Your task to perform on an android device: Open the web browser Image 0: 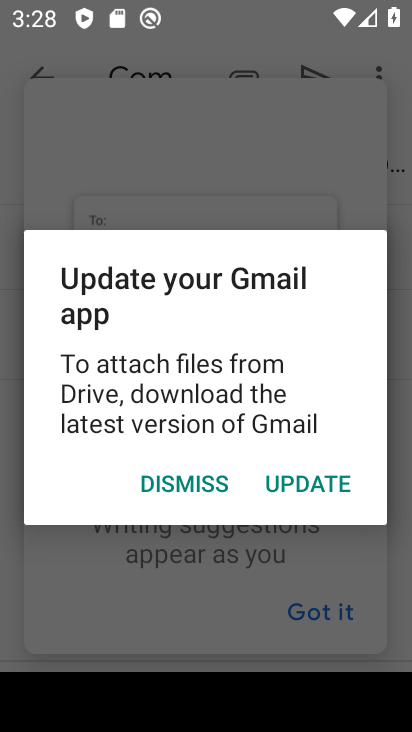
Step 0: press back button
Your task to perform on an android device: Open the web browser Image 1: 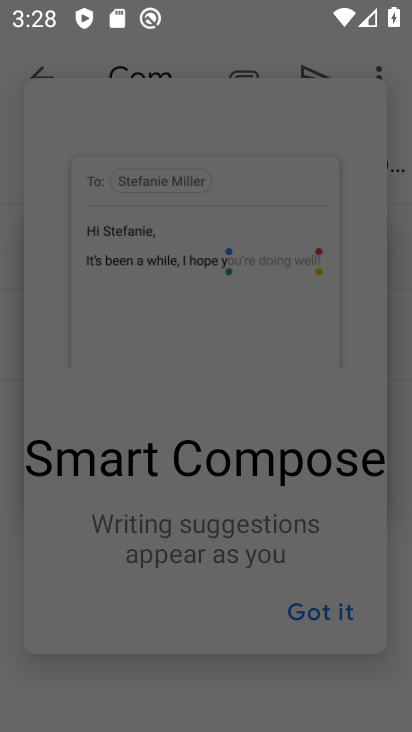
Step 1: click (173, 465)
Your task to perform on an android device: Open the web browser Image 2: 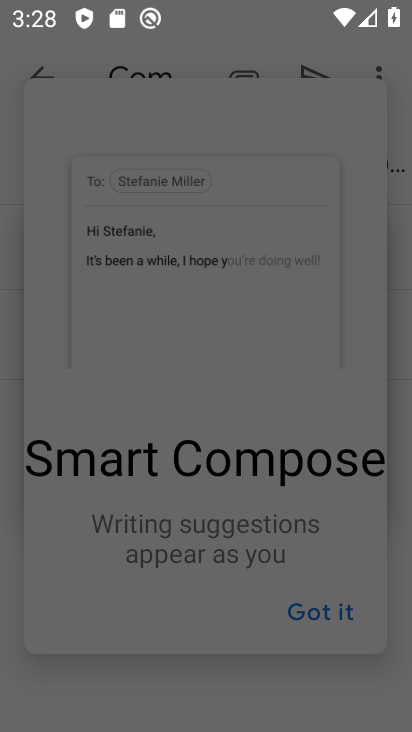
Step 2: click (314, 608)
Your task to perform on an android device: Open the web browser Image 3: 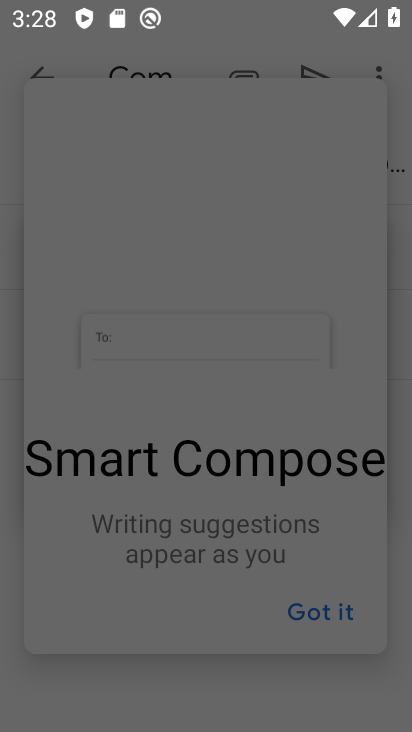
Step 3: click (311, 616)
Your task to perform on an android device: Open the web browser Image 4: 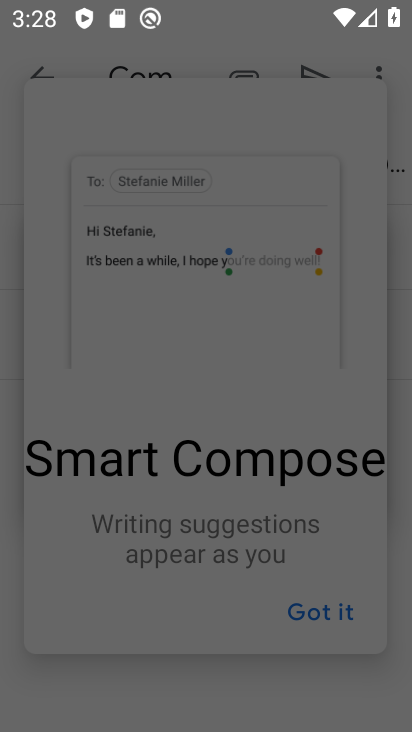
Step 4: click (318, 614)
Your task to perform on an android device: Open the web browser Image 5: 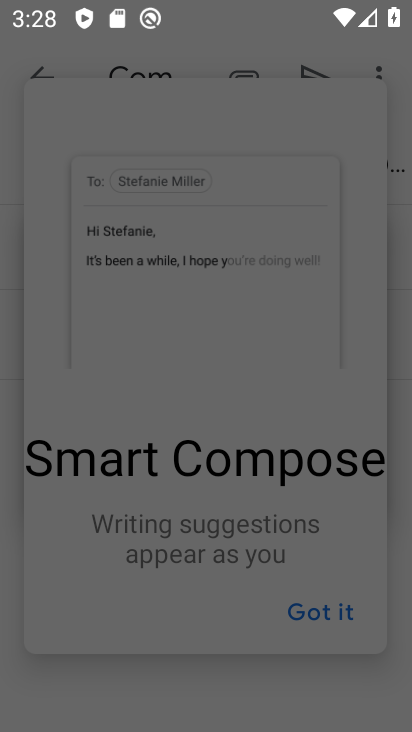
Step 5: click (318, 614)
Your task to perform on an android device: Open the web browser Image 6: 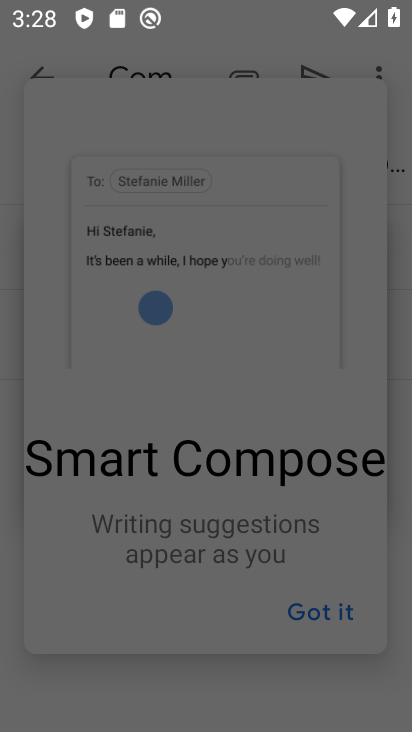
Step 6: click (328, 611)
Your task to perform on an android device: Open the web browser Image 7: 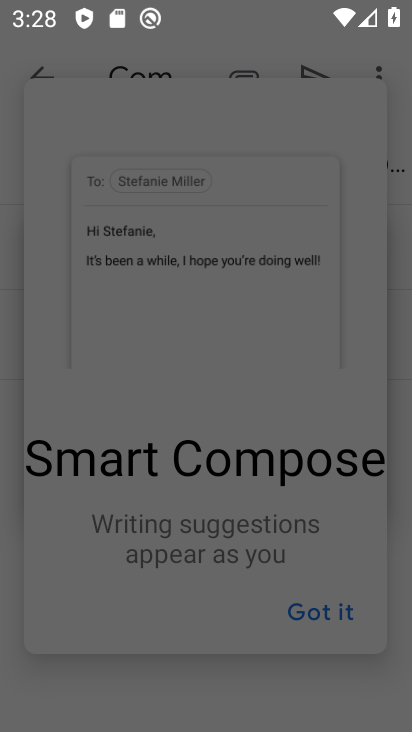
Step 7: click (330, 612)
Your task to perform on an android device: Open the web browser Image 8: 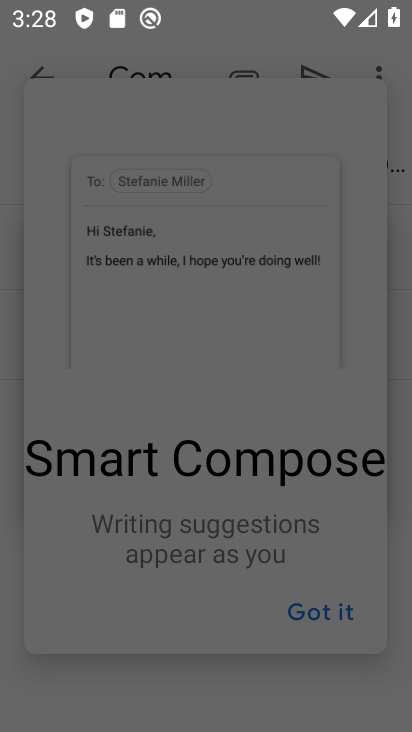
Step 8: click (328, 609)
Your task to perform on an android device: Open the web browser Image 9: 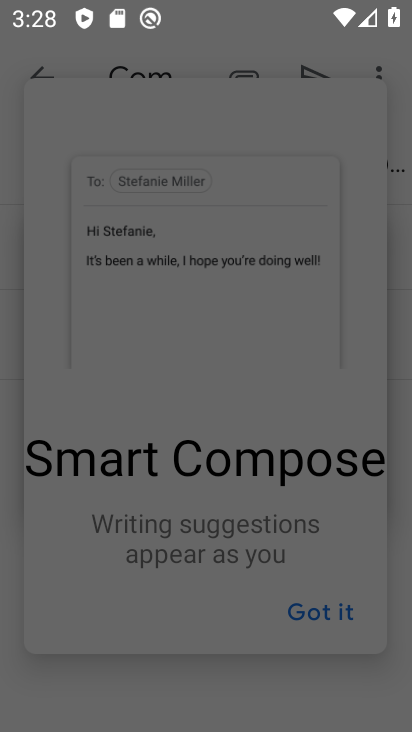
Step 9: click (300, 611)
Your task to perform on an android device: Open the web browser Image 10: 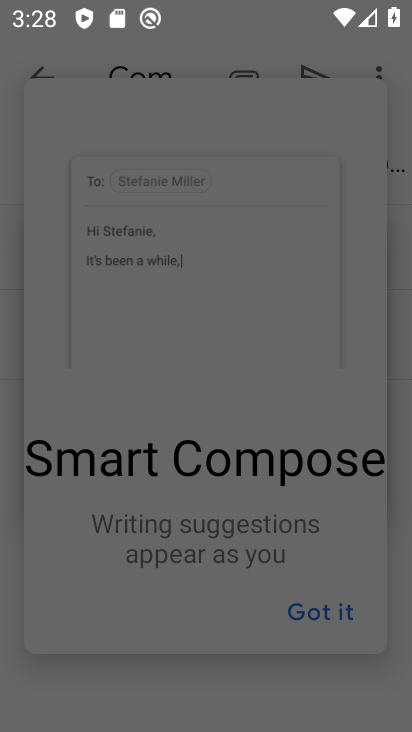
Step 10: press back button
Your task to perform on an android device: Open the web browser Image 11: 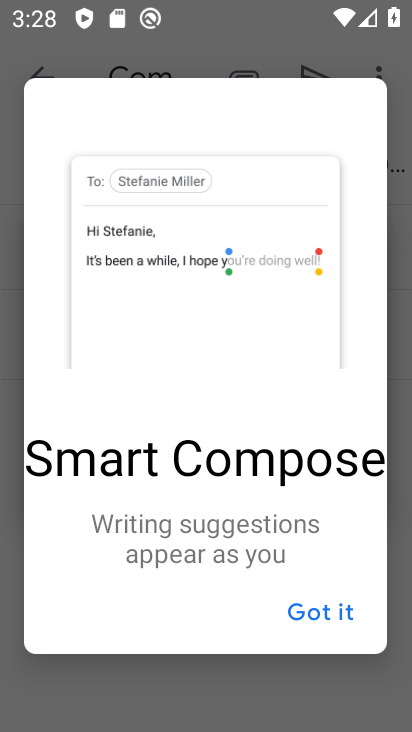
Step 11: click (301, 607)
Your task to perform on an android device: Open the web browser Image 12: 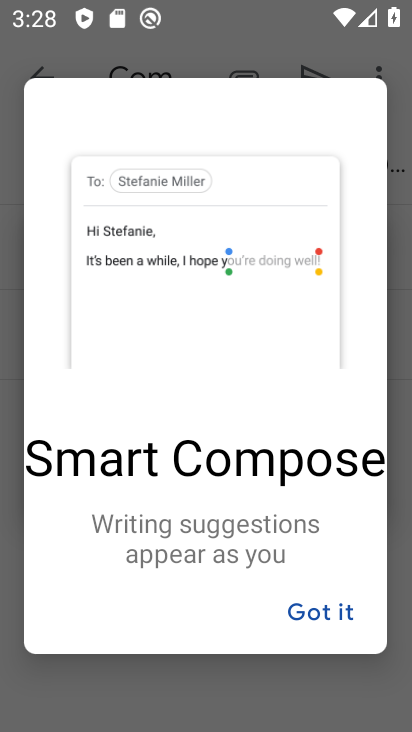
Step 12: click (317, 595)
Your task to perform on an android device: Open the web browser Image 13: 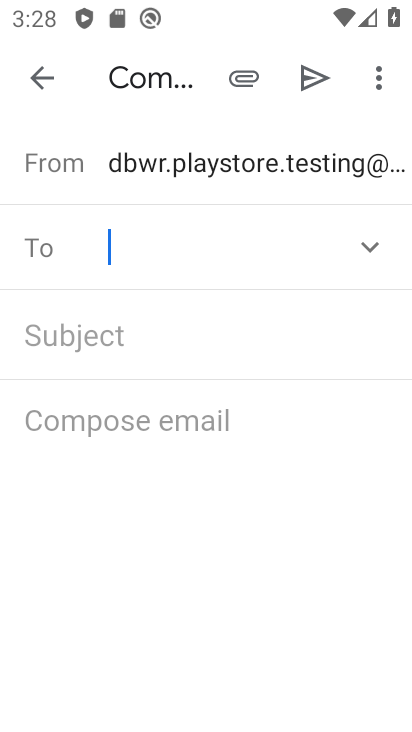
Step 13: click (34, 77)
Your task to perform on an android device: Open the web browser Image 14: 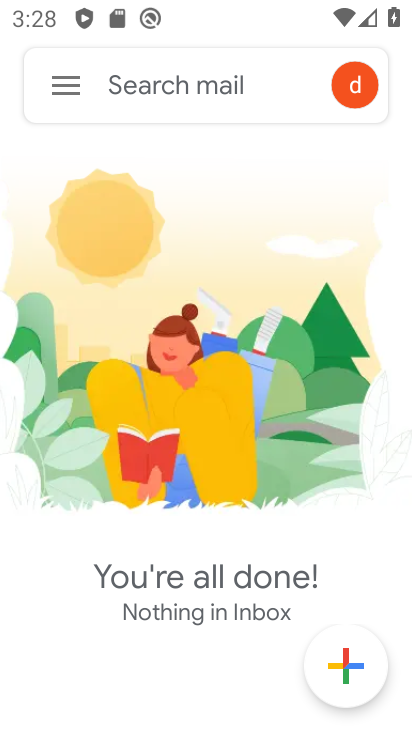
Step 14: press home button
Your task to perform on an android device: Open the web browser Image 15: 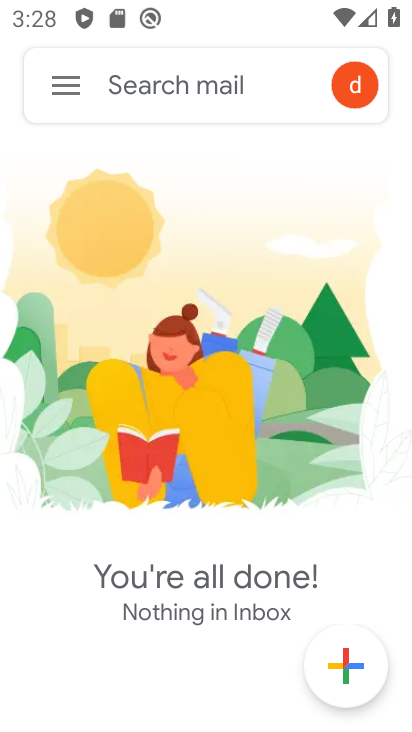
Step 15: press home button
Your task to perform on an android device: Open the web browser Image 16: 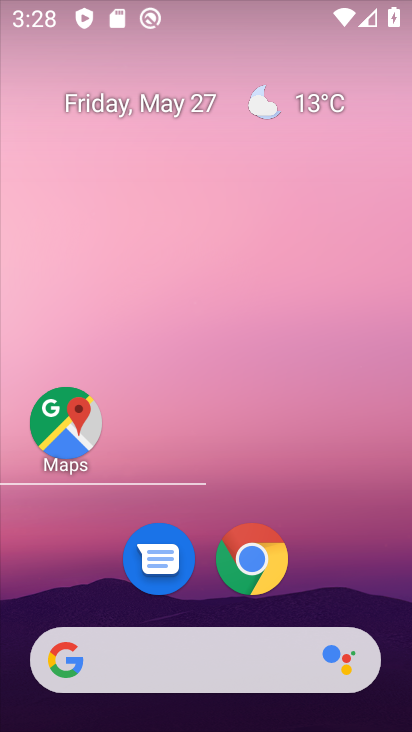
Step 16: press back button
Your task to perform on an android device: Open the web browser Image 17: 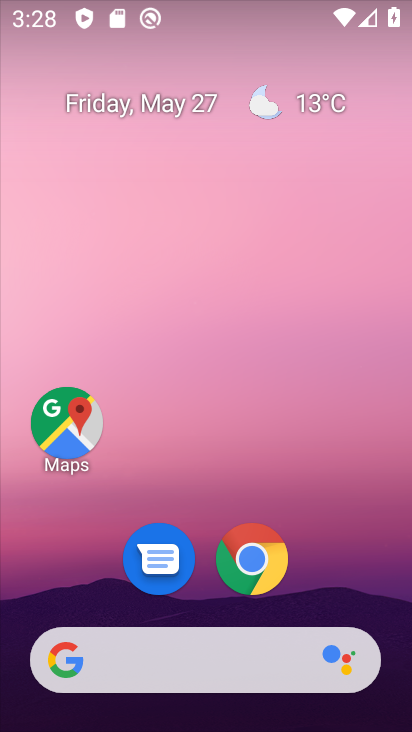
Step 17: drag from (206, 398) to (116, 170)
Your task to perform on an android device: Open the web browser Image 18: 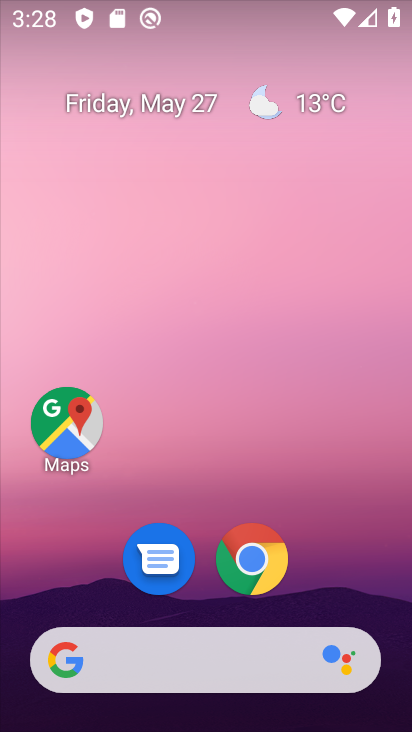
Step 18: drag from (227, 374) to (181, 207)
Your task to perform on an android device: Open the web browser Image 19: 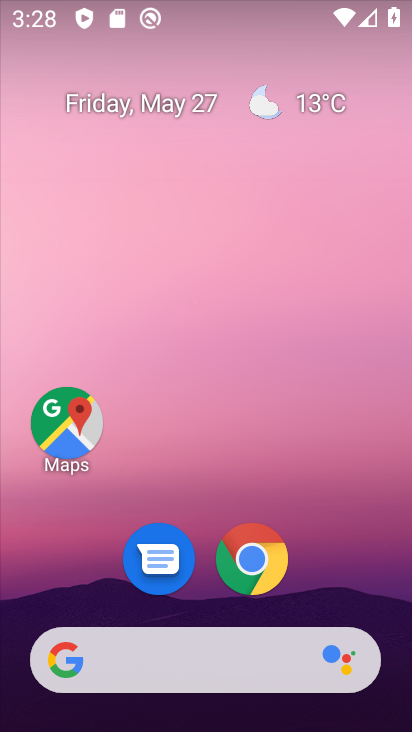
Step 19: drag from (235, 460) to (158, 188)
Your task to perform on an android device: Open the web browser Image 20: 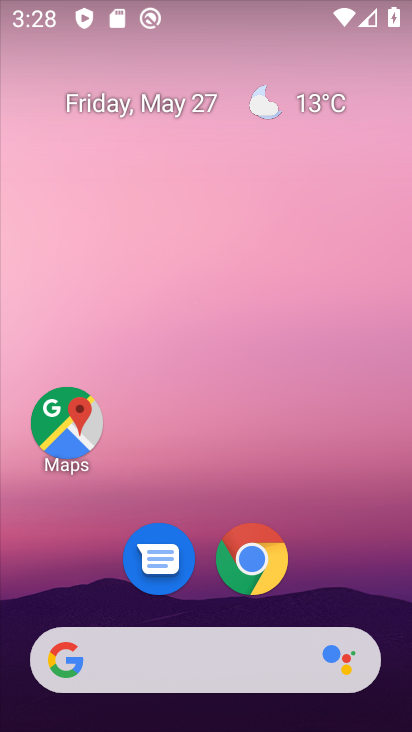
Step 20: drag from (181, 436) to (113, 194)
Your task to perform on an android device: Open the web browser Image 21: 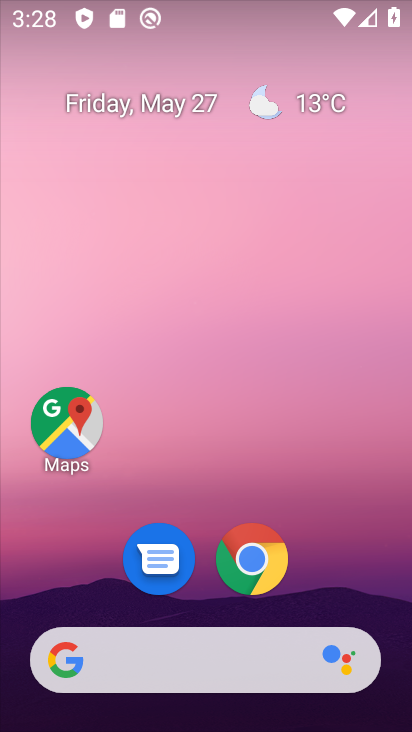
Step 21: drag from (262, 666) to (58, 58)
Your task to perform on an android device: Open the web browser Image 22: 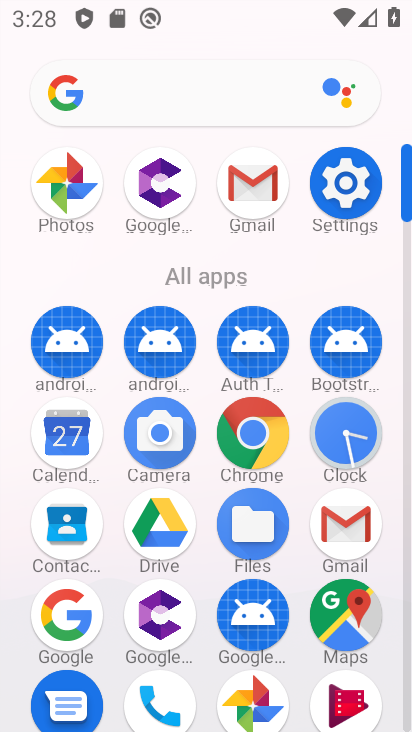
Step 22: drag from (250, 667) to (121, 105)
Your task to perform on an android device: Open the web browser Image 23: 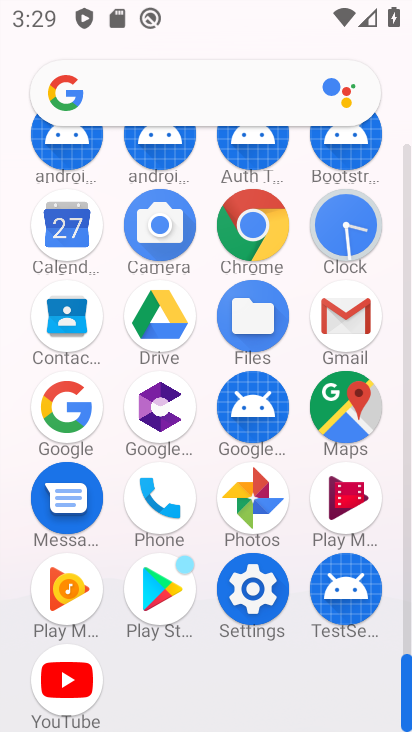
Step 23: click (251, 233)
Your task to perform on an android device: Open the web browser Image 24: 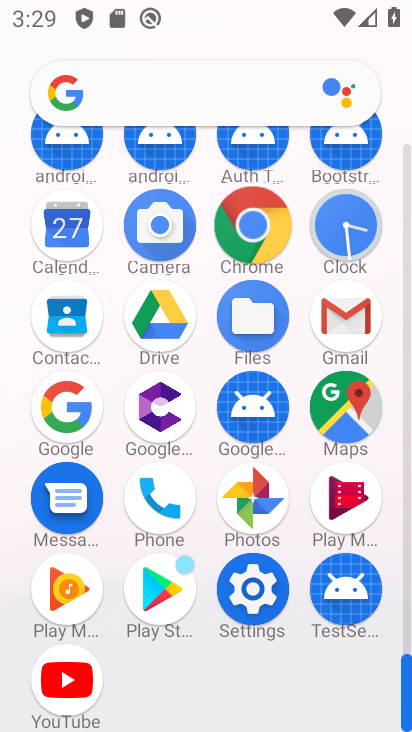
Step 24: click (251, 233)
Your task to perform on an android device: Open the web browser Image 25: 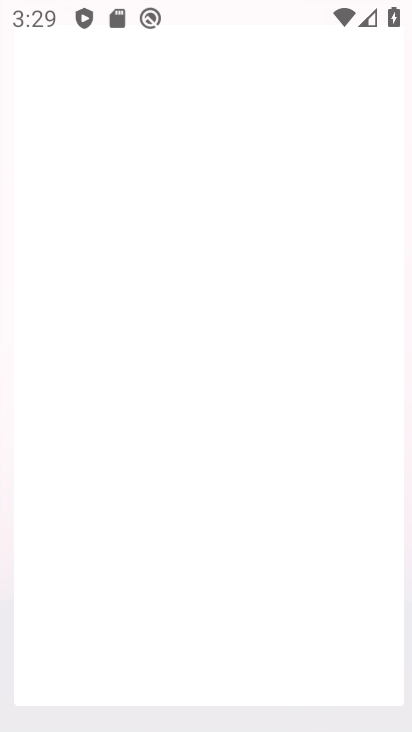
Step 25: click (251, 233)
Your task to perform on an android device: Open the web browser Image 26: 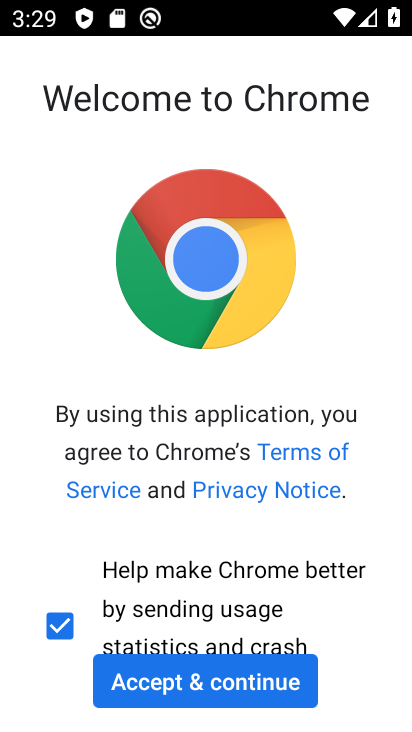
Step 26: click (222, 671)
Your task to perform on an android device: Open the web browser Image 27: 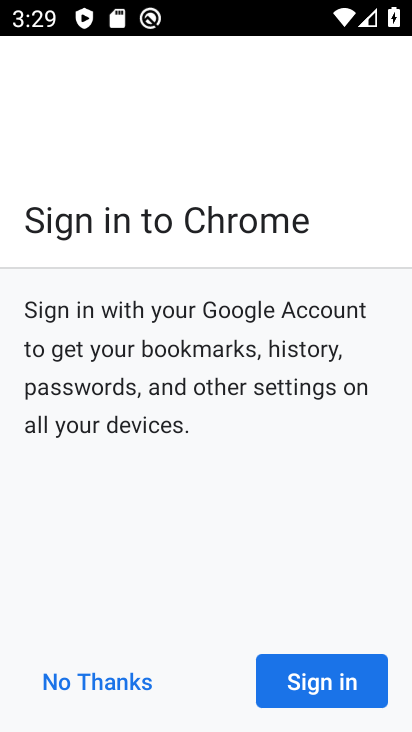
Step 27: click (224, 673)
Your task to perform on an android device: Open the web browser Image 28: 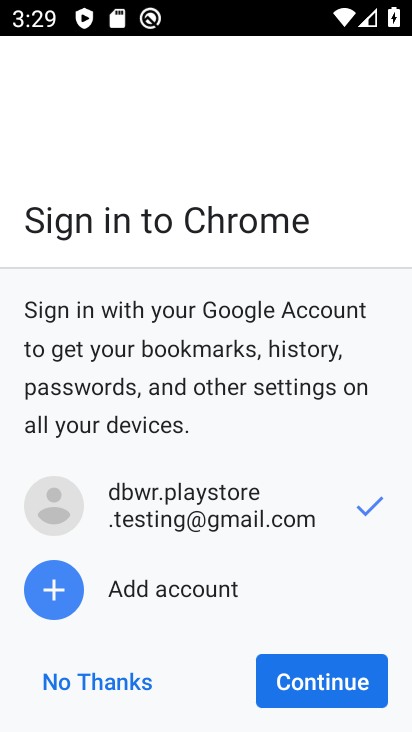
Step 28: click (224, 673)
Your task to perform on an android device: Open the web browser Image 29: 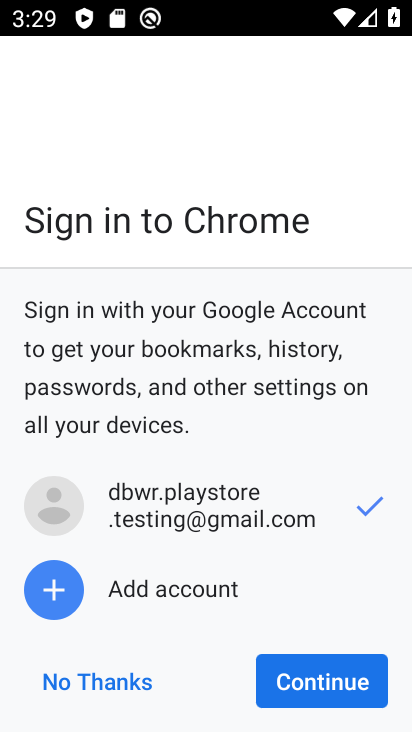
Step 29: click (321, 687)
Your task to perform on an android device: Open the web browser Image 30: 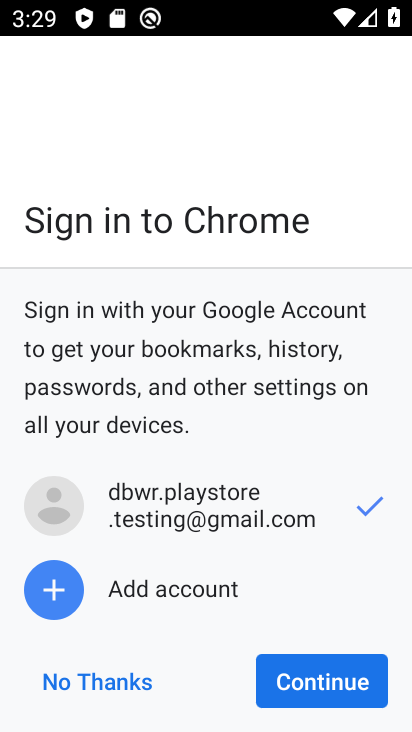
Step 30: click (321, 687)
Your task to perform on an android device: Open the web browser Image 31: 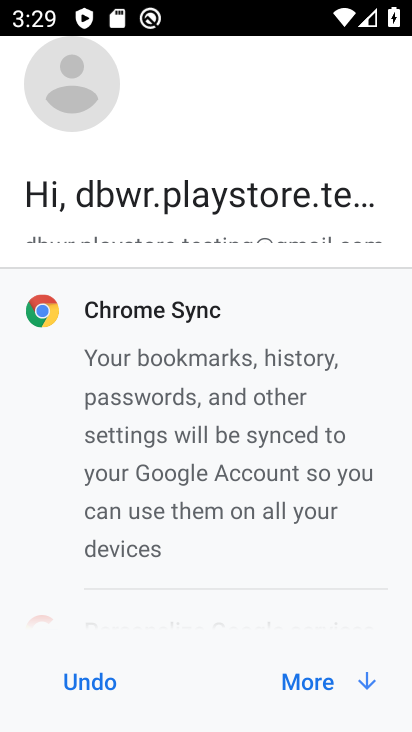
Step 31: click (320, 686)
Your task to perform on an android device: Open the web browser Image 32: 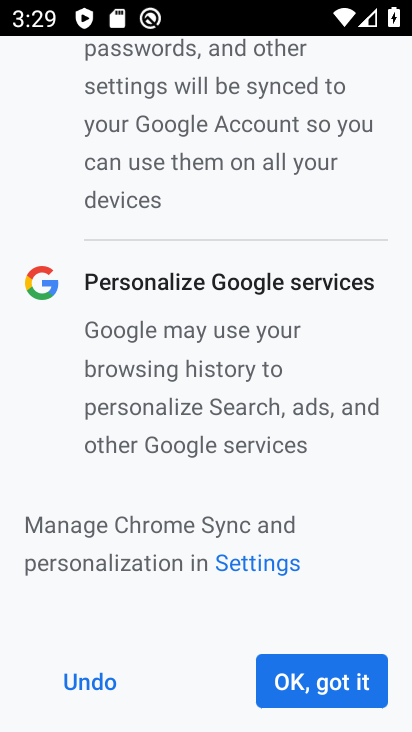
Step 32: click (320, 686)
Your task to perform on an android device: Open the web browser Image 33: 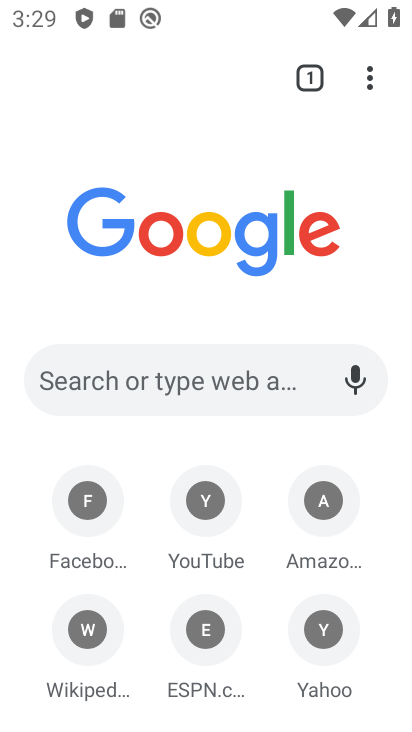
Step 33: click (311, 675)
Your task to perform on an android device: Open the web browser Image 34: 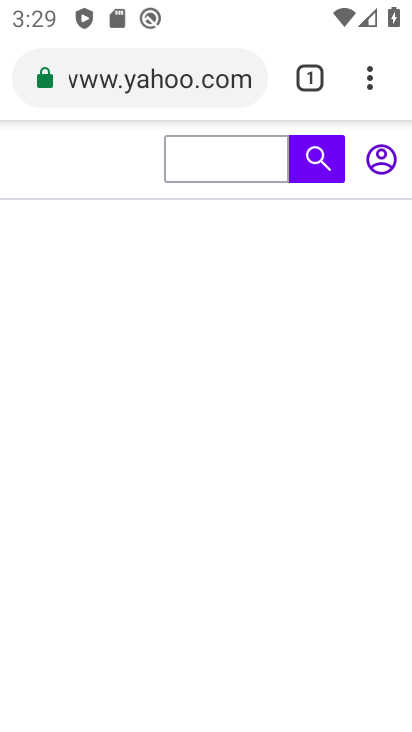
Step 34: task complete